Your task to perform on an android device: see sites visited before in the chrome app Image 0: 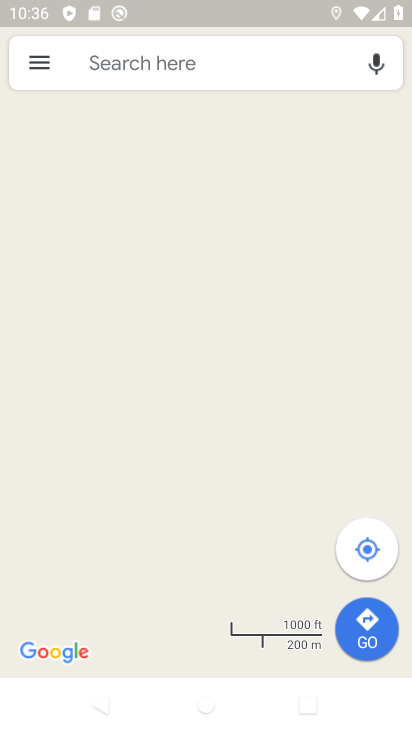
Step 0: press home button
Your task to perform on an android device: see sites visited before in the chrome app Image 1: 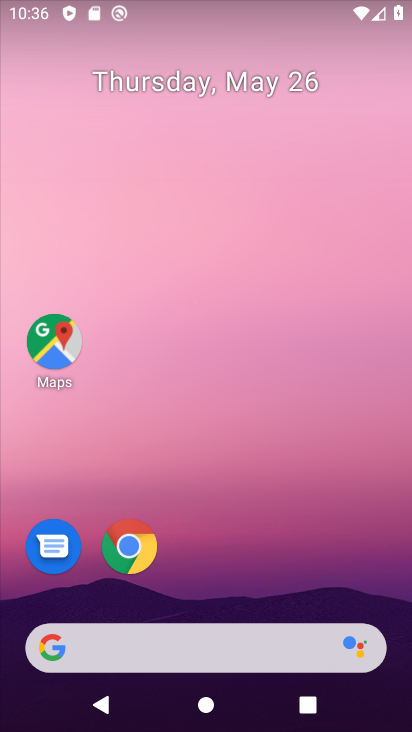
Step 1: click (131, 547)
Your task to perform on an android device: see sites visited before in the chrome app Image 2: 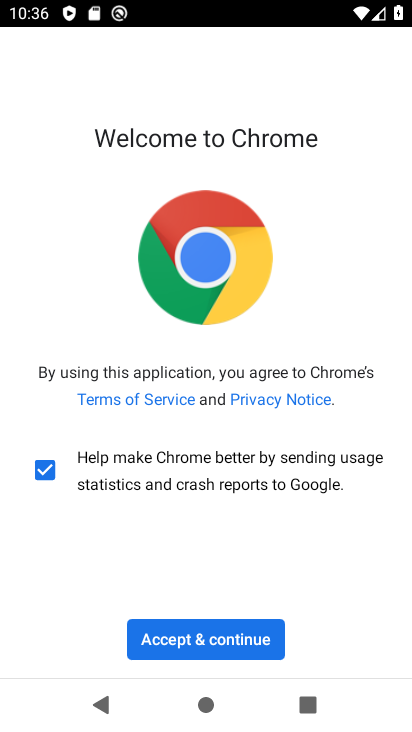
Step 2: click (237, 653)
Your task to perform on an android device: see sites visited before in the chrome app Image 3: 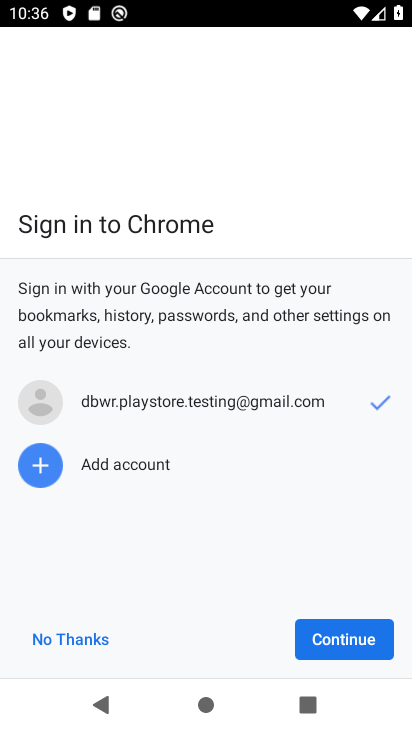
Step 3: click (337, 640)
Your task to perform on an android device: see sites visited before in the chrome app Image 4: 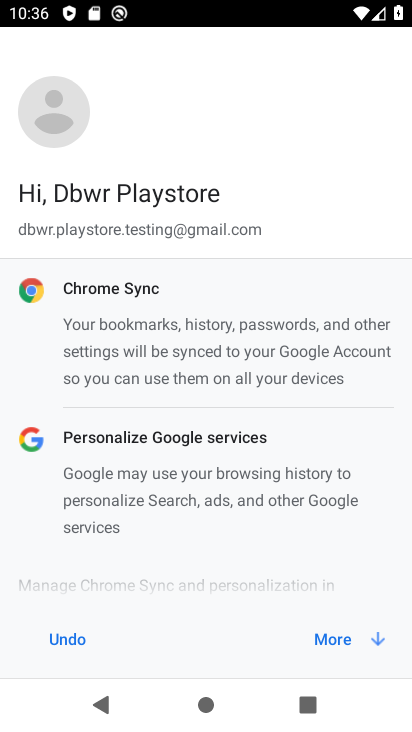
Step 4: click (337, 640)
Your task to perform on an android device: see sites visited before in the chrome app Image 5: 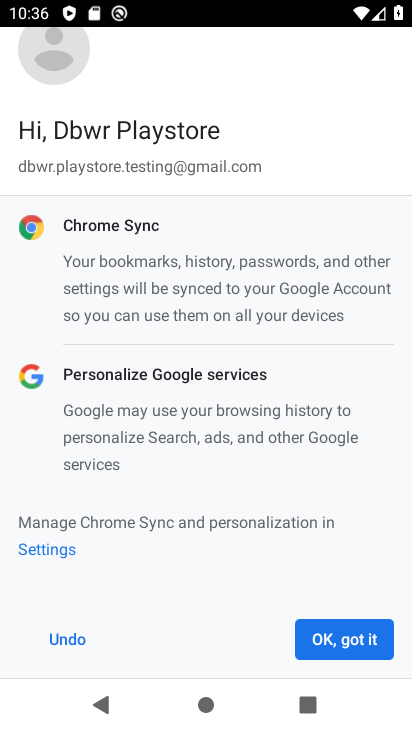
Step 5: click (337, 640)
Your task to perform on an android device: see sites visited before in the chrome app Image 6: 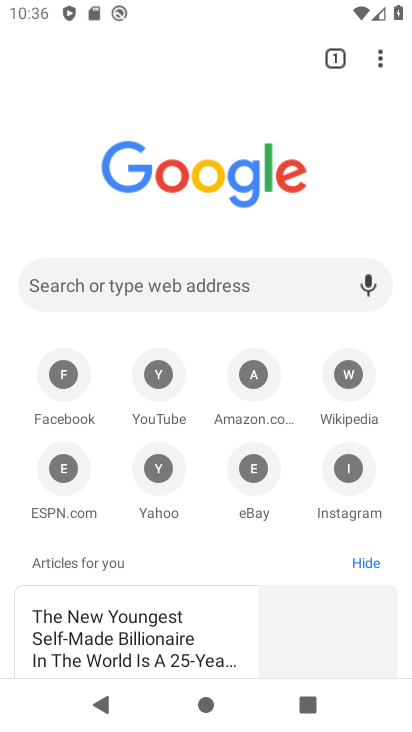
Step 6: click (365, 59)
Your task to perform on an android device: see sites visited before in the chrome app Image 7: 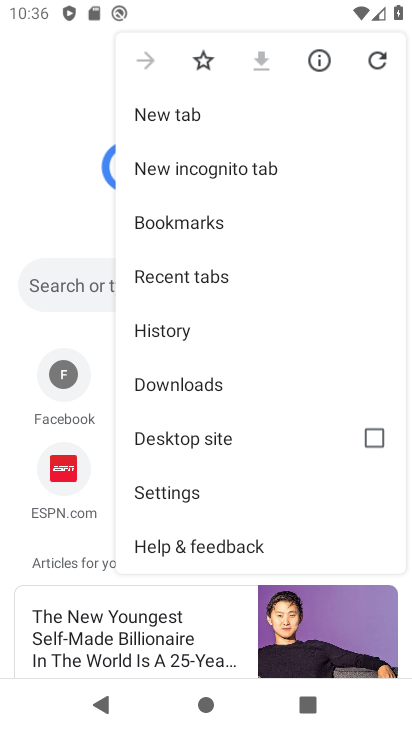
Step 7: click (168, 487)
Your task to perform on an android device: see sites visited before in the chrome app Image 8: 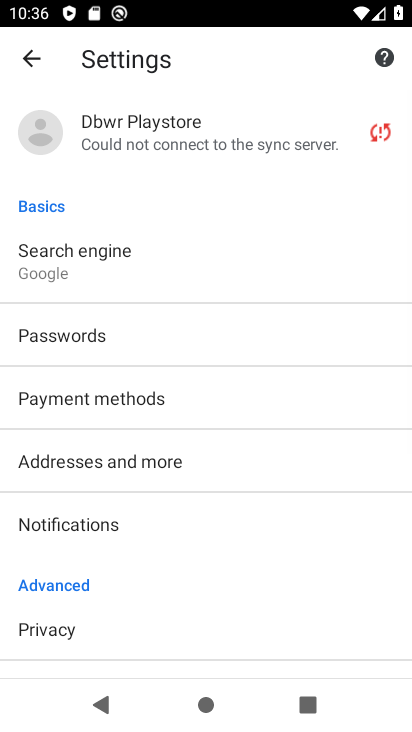
Step 8: drag from (248, 590) to (217, 392)
Your task to perform on an android device: see sites visited before in the chrome app Image 9: 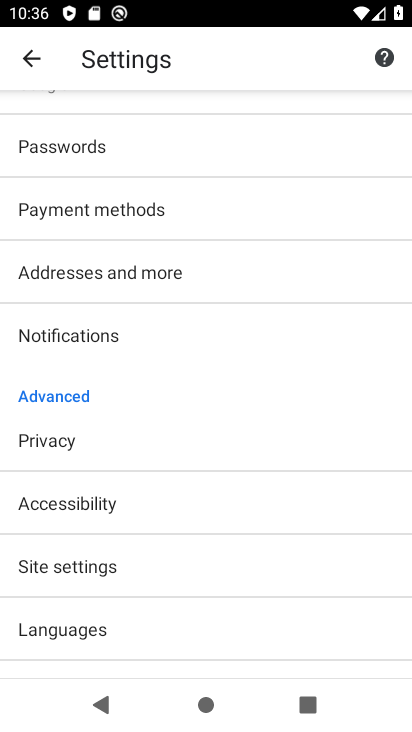
Step 9: drag from (94, 172) to (97, 493)
Your task to perform on an android device: see sites visited before in the chrome app Image 10: 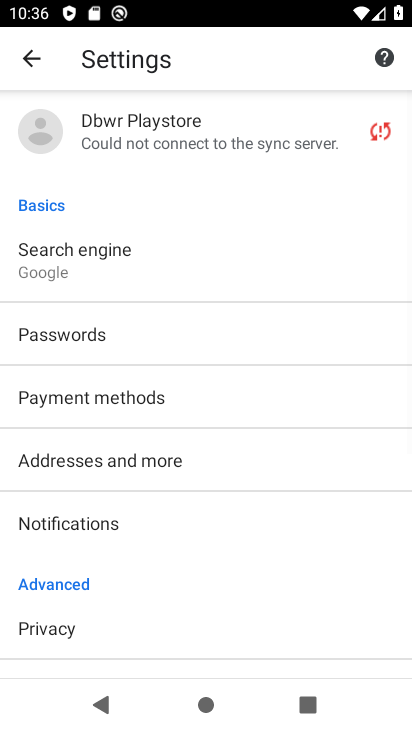
Step 10: press back button
Your task to perform on an android device: see sites visited before in the chrome app Image 11: 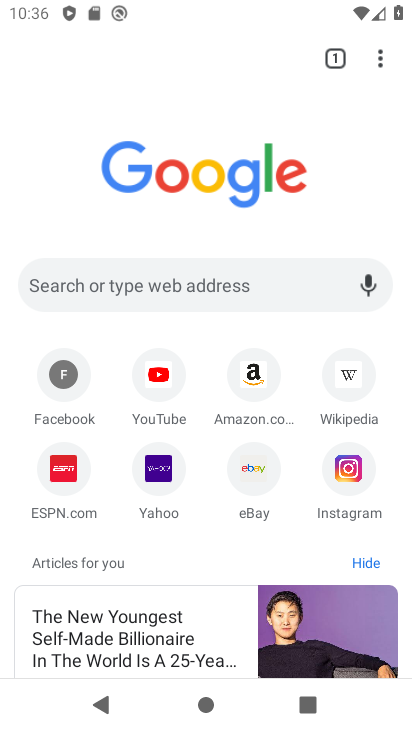
Step 11: click (377, 54)
Your task to perform on an android device: see sites visited before in the chrome app Image 12: 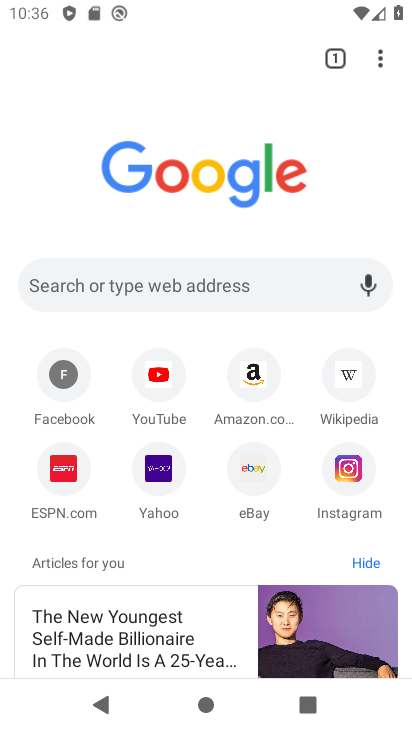
Step 12: click (377, 56)
Your task to perform on an android device: see sites visited before in the chrome app Image 13: 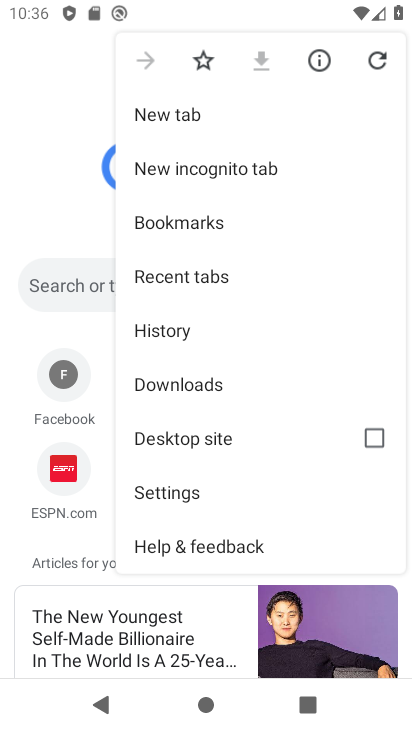
Step 13: click (194, 330)
Your task to perform on an android device: see sites visited before in the chrome app Image 14: 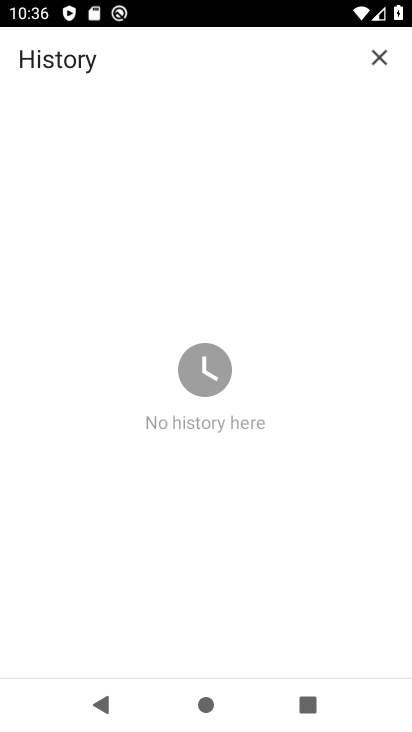
Step 14: task complete